Your task to perform on an android device: Show me the alarms in the clock app Image 0: 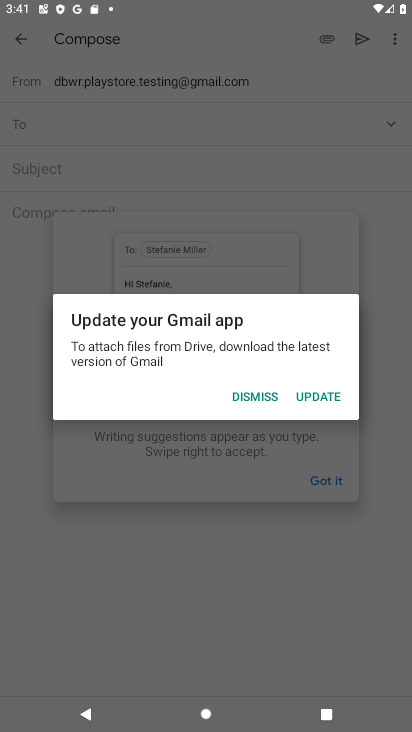
Step 0: press home button
Your task to perform on an android device: Show me the alarms in the clock app Image 1: 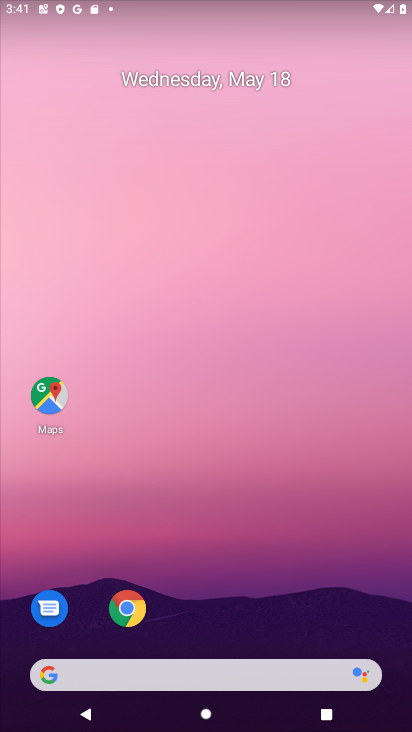
Step 1: drag from (245, 557) to (252, 168)
Your task to perform on an android device: Show me the alarms in the clock app Image 2: 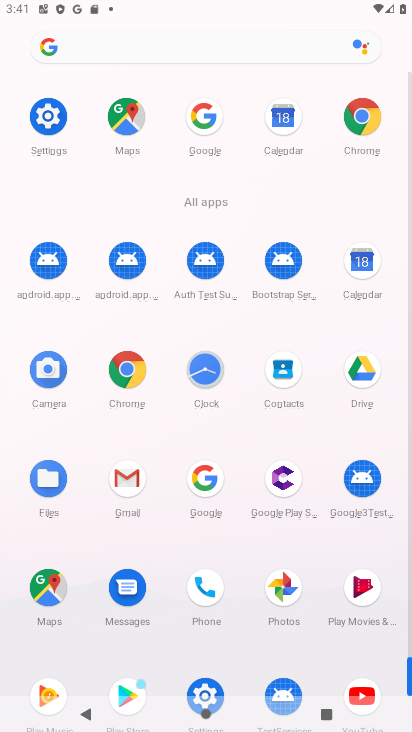
Step 2: click (205, 379)
Your task to perform on an android device: Show me the alarms in the clock app Image 3: 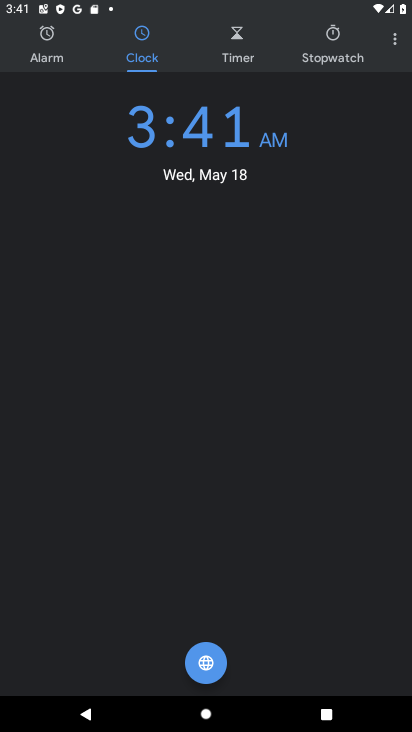
Step 3: click (44, 59)
Your task to perform on an android device: Show me the alarms in the clock app Image 4: 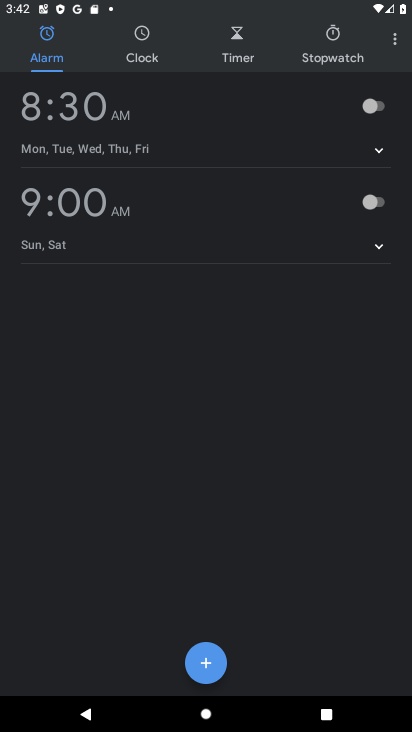
Step 4: task complete